Your task to perform on an android device: change the clock display to digital Image 0: 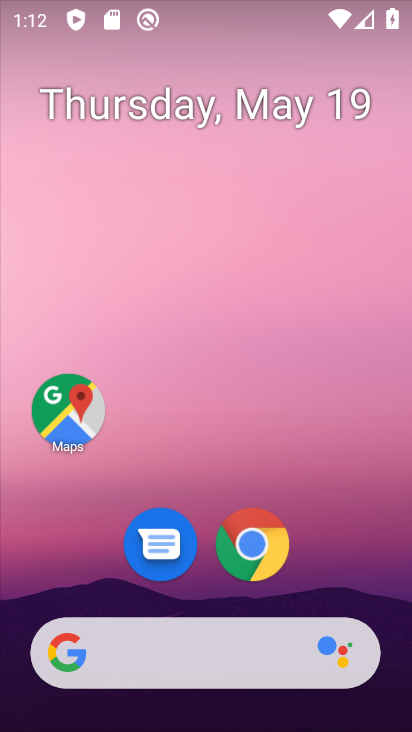
Step 0: press home button
Your task to perform on an android device: change the clock display to digital Image 1: 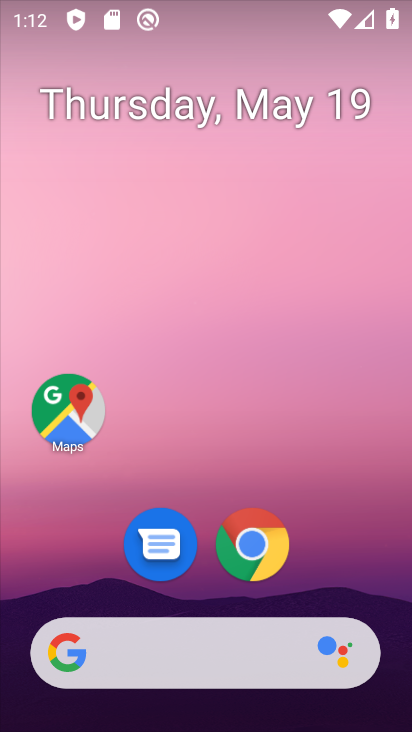
Step 1: drag from (175, 693) to (180, 313)
Your task to perform on an android device: change the clock display to digital Image 2: 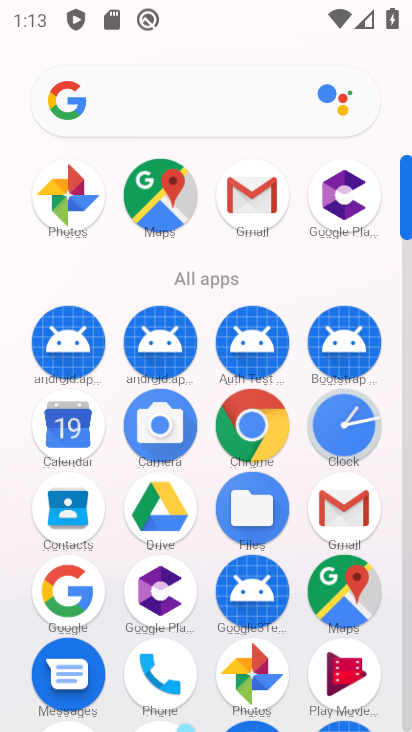
Step 2: click (344, 421)
Your task to perform on an android device: change the clock display to digital Image 3: 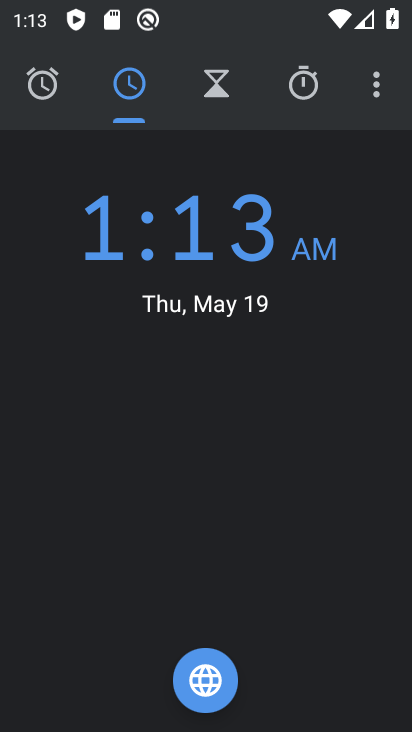
Step 3: click (377, 98)
Your task to perform on an android device: change the clock display to digital Image 4: 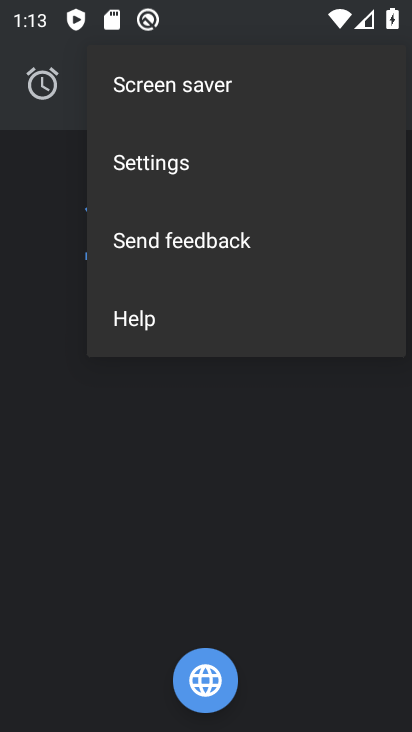
Step 4: click (178, 158)
Your task to perform on an android device: change the clock display to digital Image 5: 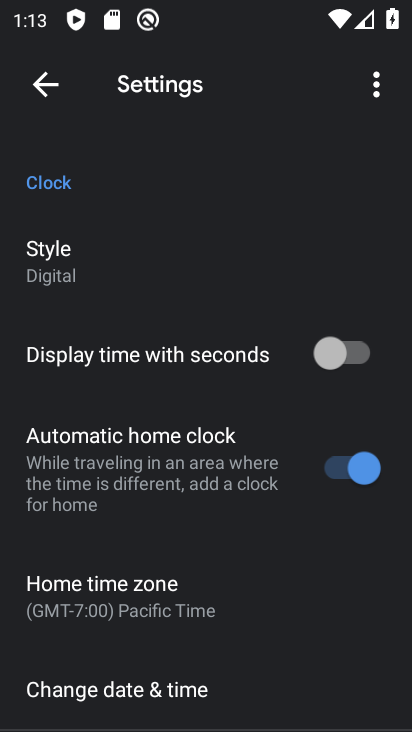
Step 5: click (87, 252)
Your task to perform on an android device: change the clock display to digital Image 6: 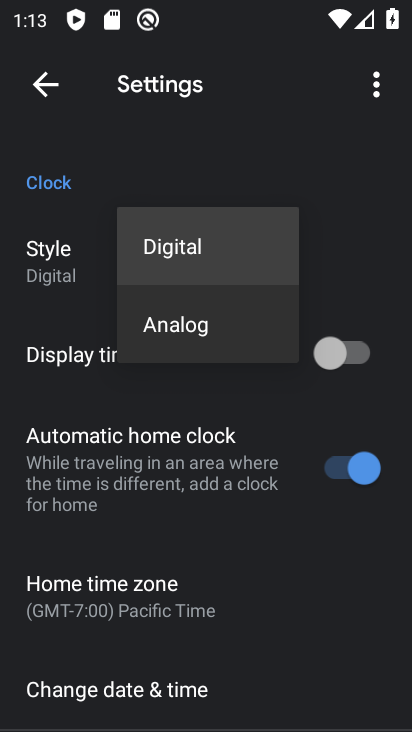
Step 6: click (162, 258)
Your task to perform on an android device: change the clock display to digital Image 7: 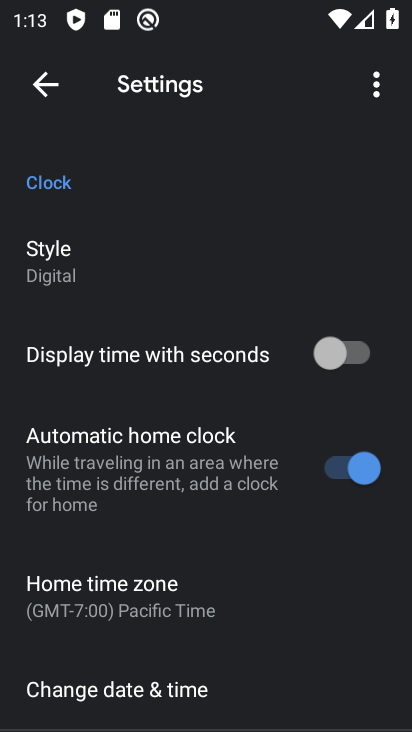
Step 7: task complete